Your task to perform on an android device: Open ESPN.com Image 0: 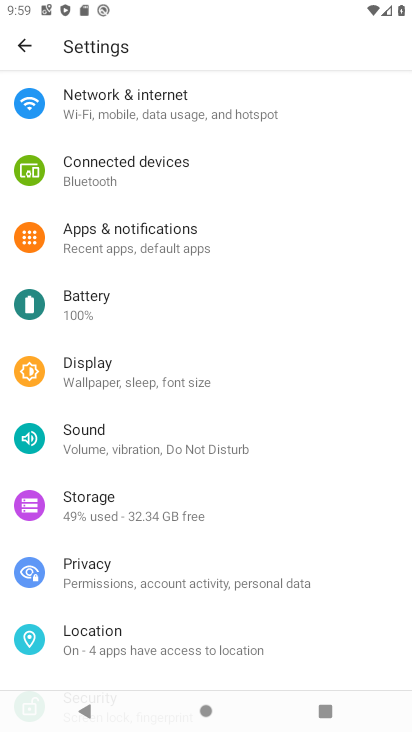
Step 0: press home button
Your task to perform on an android device: Open ESPN.com Image 1: 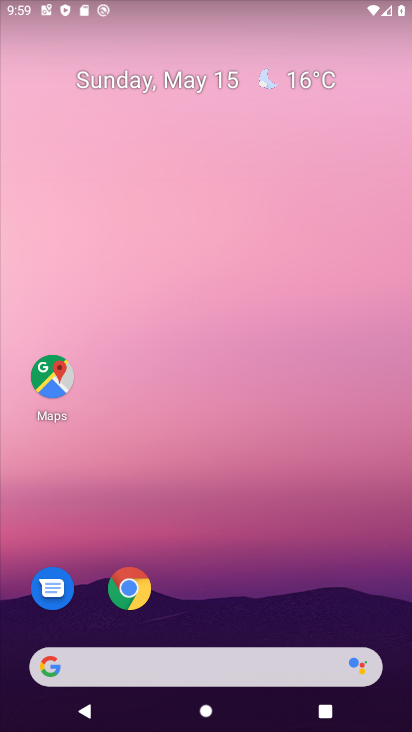
Step 1: click (229, 675)
Your task to perform on an android device: Open ESPN.com Image 2: 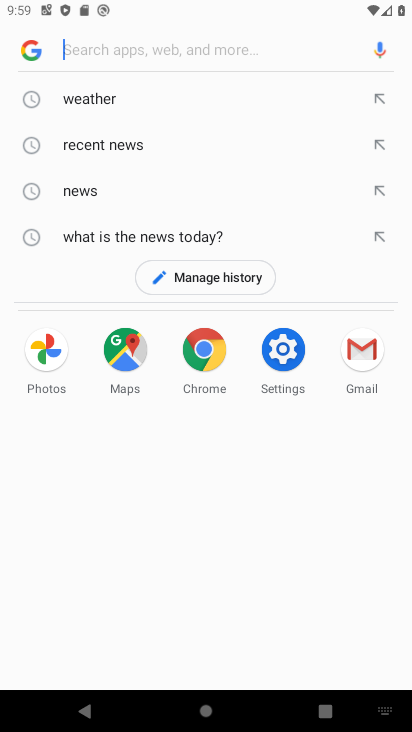
Step 2: type "ESPN.com"
Your task to perform on an android device: Open ESPN.com Image 3: 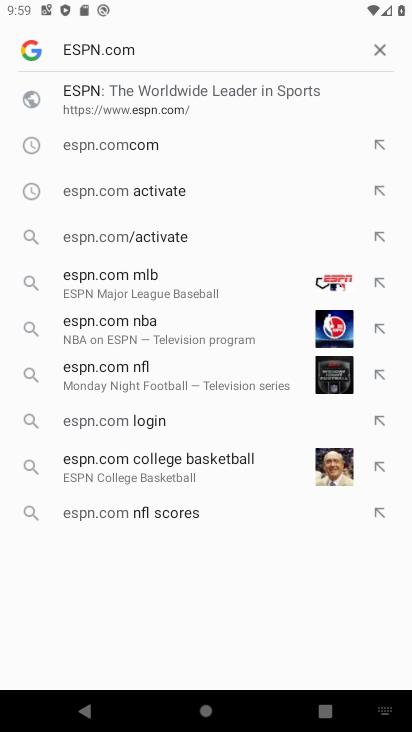
Step 3: click (155, 112)
Your task to perform on an android device: Open ESPN.com Image 4: 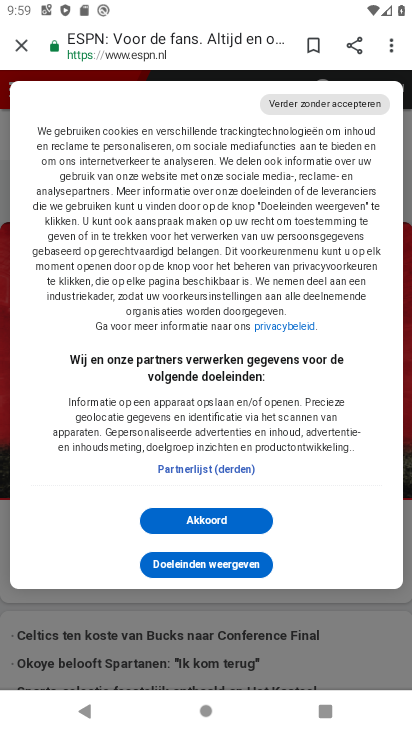
Step 4: click (220, 561)
Your task to perform on an android device: Open ESPN.com Image 5: 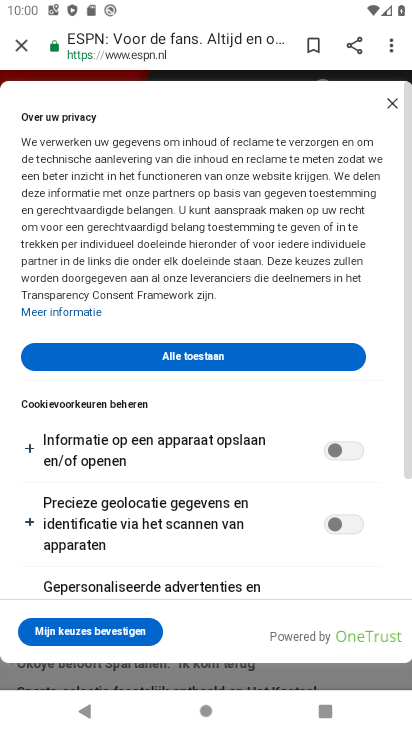
Step 5: task complete